Your task to perform on an android device: delete location history Image 0: 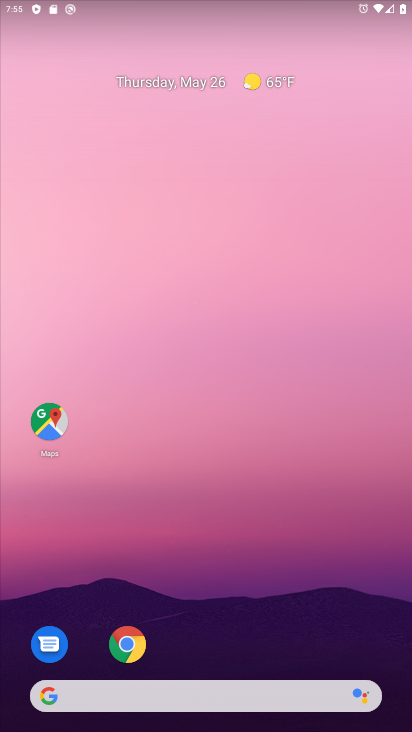
Step 0: drag from (215, 626) to (265, 139)
Your task to perform on an android device: delete location history Image 1: 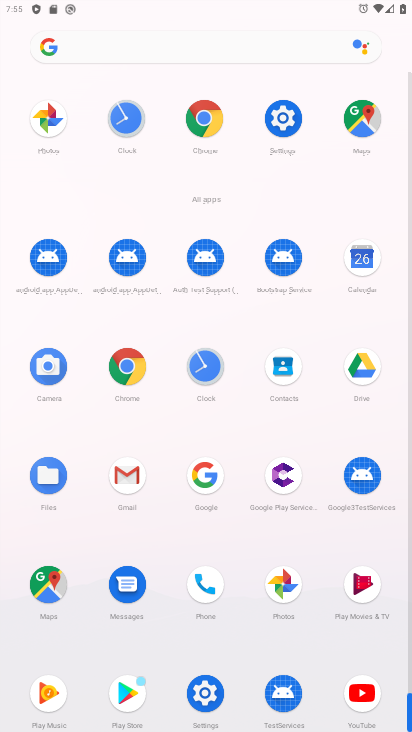
Step 1: click (277, 116)
Your task to perform on an android device: delete location history Image 2: 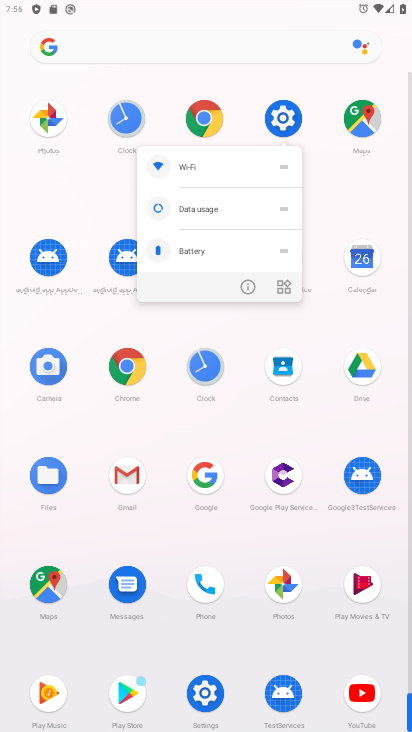
Step 2: click (241, 292)
Your task to perform on an android device: delete location history Image 3: 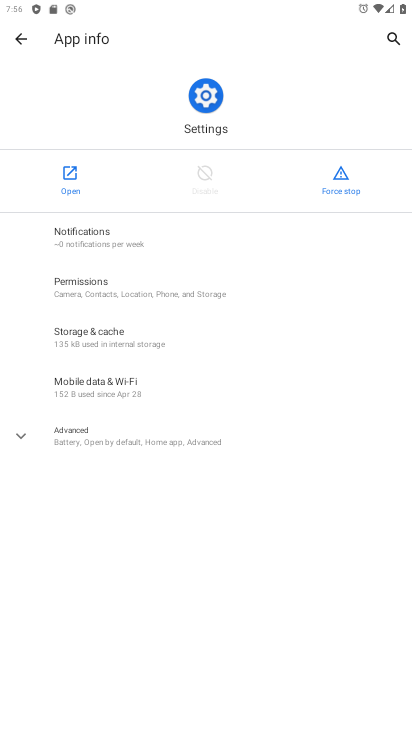
Step 3: click (82, 158)
Your task to perform on an android device: delete location history Image 4: 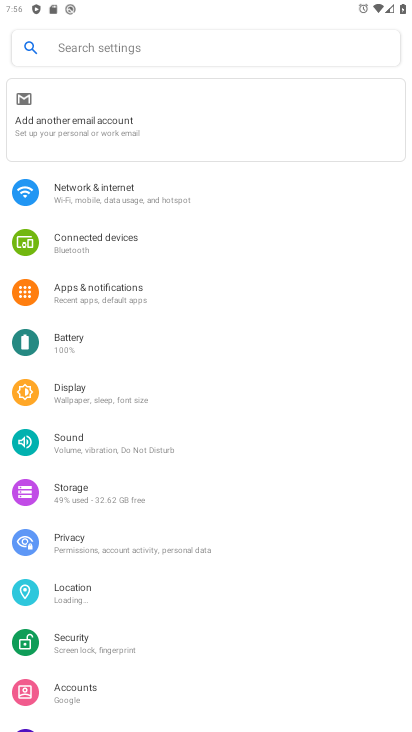
Step 4: drag from (122, 586) to (312, 41)
Your task to perform on an android device: delete location history Image 5: 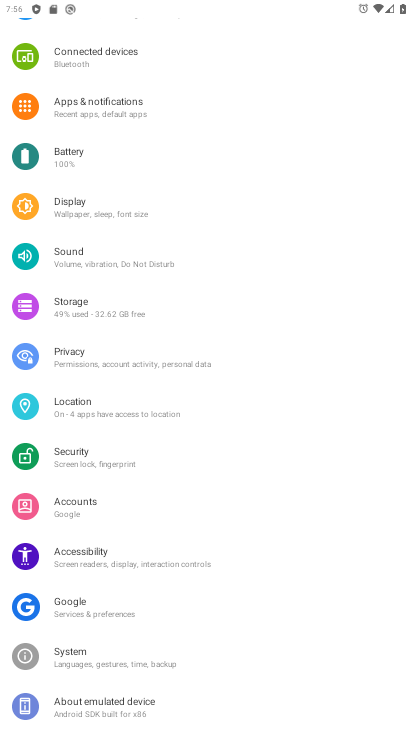
Step 5: click (104, 411)
Your task to perform on an android device: delete location history Image 6: 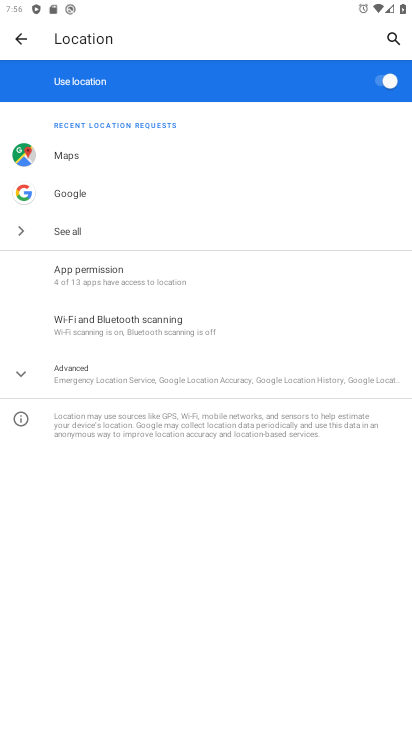
Step 6: click (67, 384)
Your task to perform on an android device: delete location history Image 7: 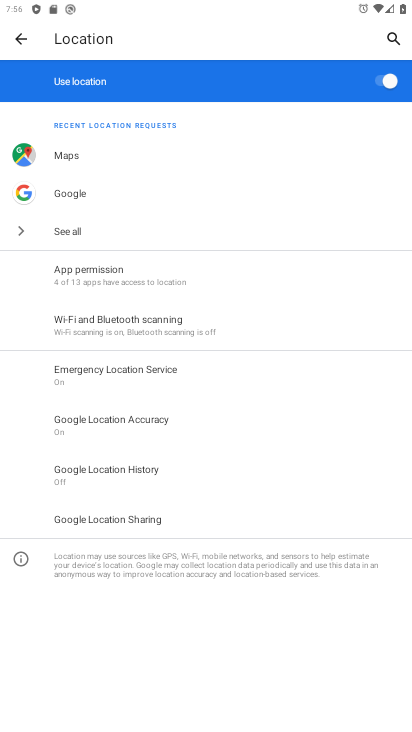
Step 7: click (120, 460)
Your task to perform on an android device: delete location history Image 8: 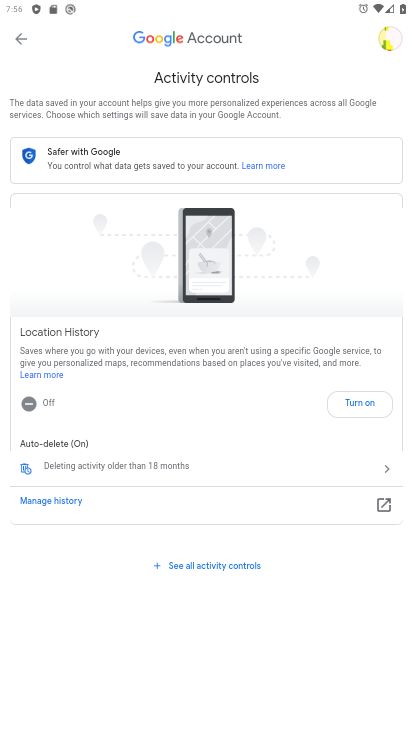
Step 8: click (24, 466)
Your task to perform on an android device: delete location history Image 9: 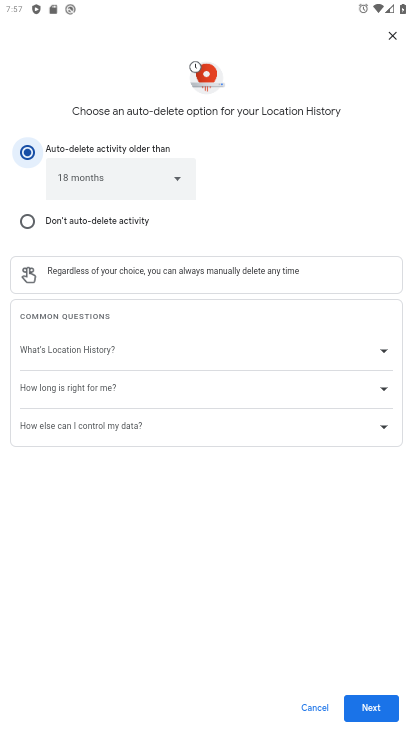
Step 9: click (374, 707)
Your task to perform on an android device: delete location history Image 10: 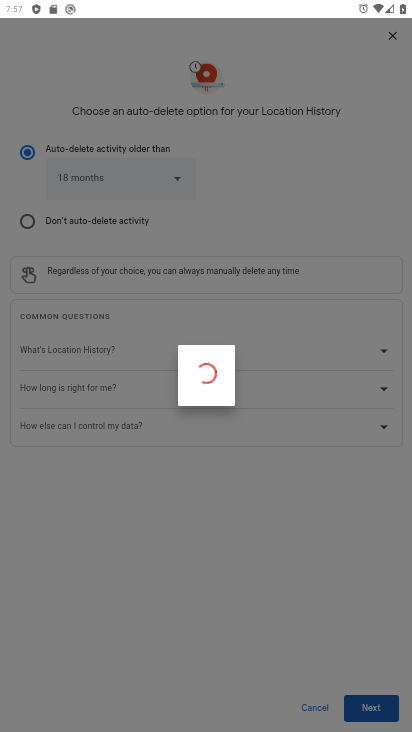
Step 10: click (376, 711)
Your task to perform on an android device: delete location history Image 11: 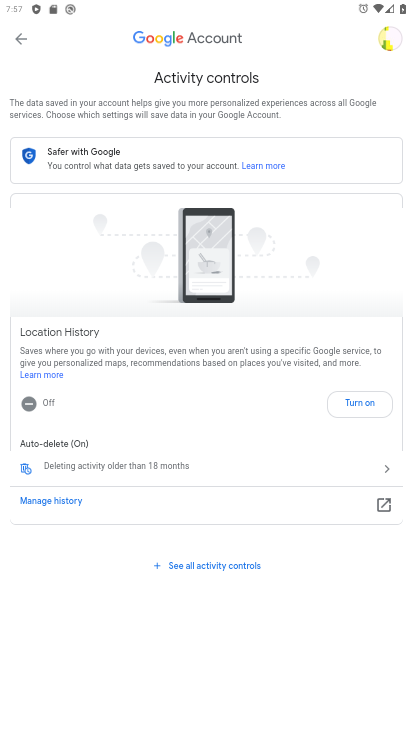
Step 11: task complete